Your task to perform on an android device: change the clock style Image 0: 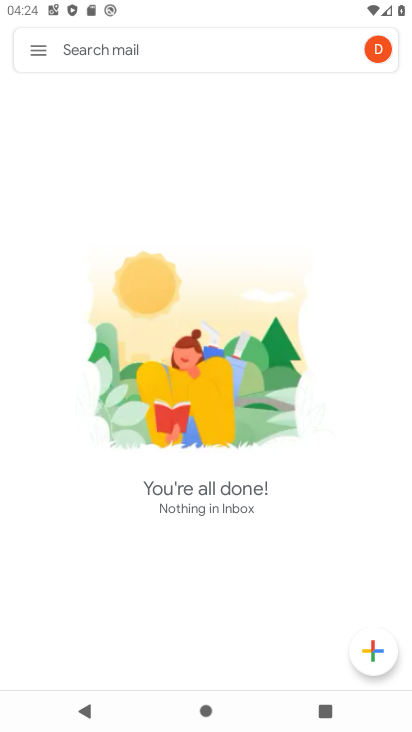
Step 0: press back button
Your task to perform on an android device: change the clock style Image 1: 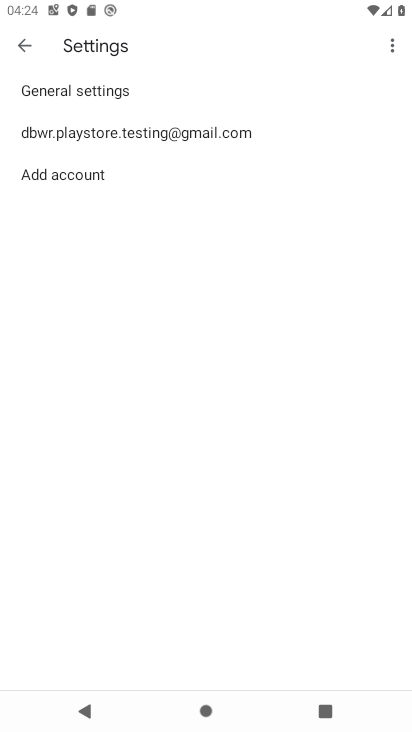
Step 1: press back button
Your task to perform on an android device: change the clock style Image 2: 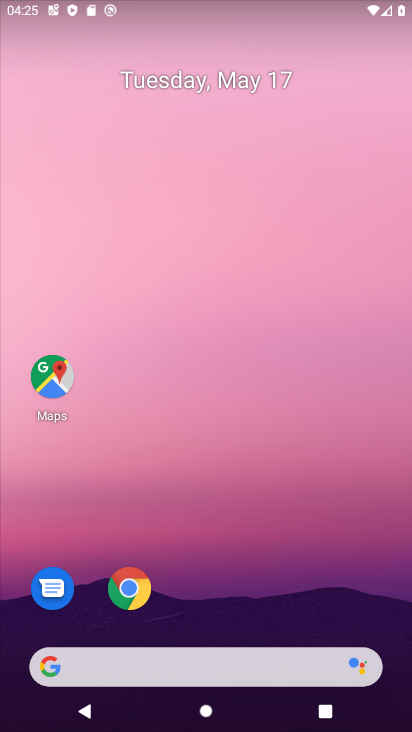
Step 2: drag from (206, 537) to (204, 114)
Your task to perform on an android device: change the clock style Image 3: 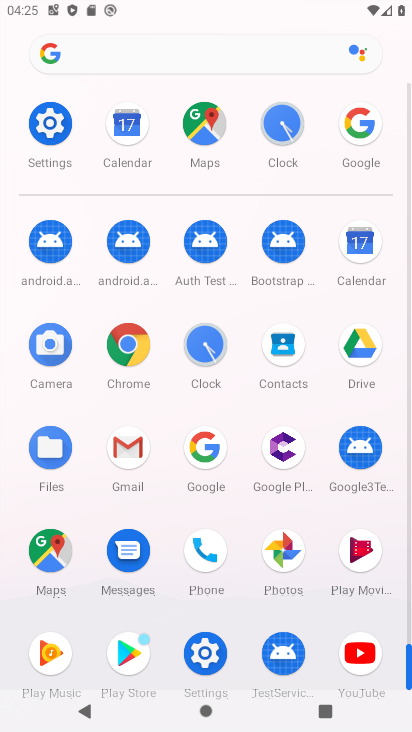
Step 3: click (280, 122)
Your task to perform on an android device: change the clock style Image 4: 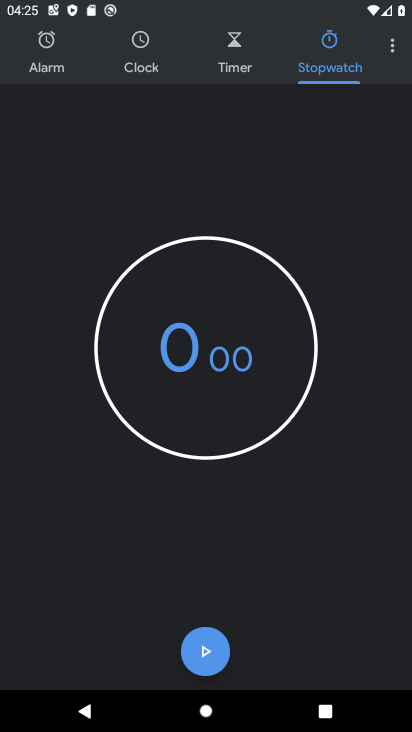
Step 4: click (393, 45)
Your task to perform on an android device: change the clock style Image 5: 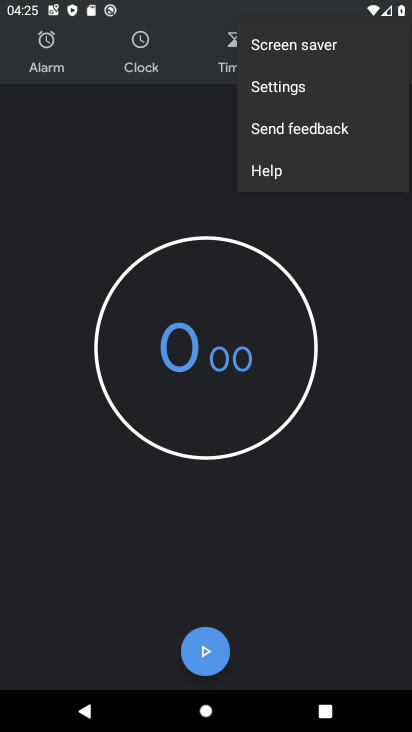
Step 5: click (281, 83)
Your task to perform on an android device: change the clock style Image 6: 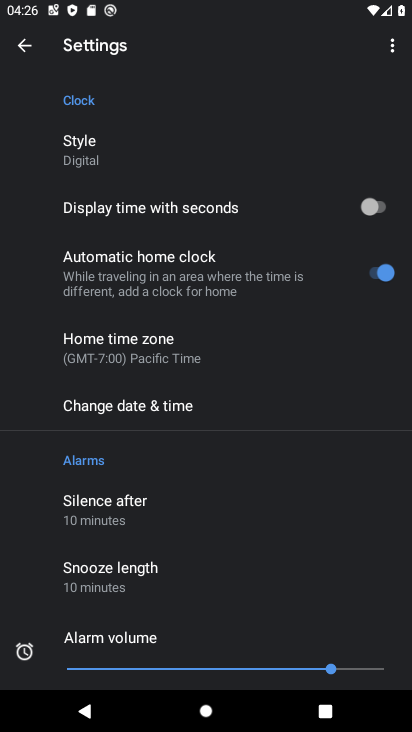
Step 6: click (104, 149)
Your task to perform on an android device: change the clock style Image 7: 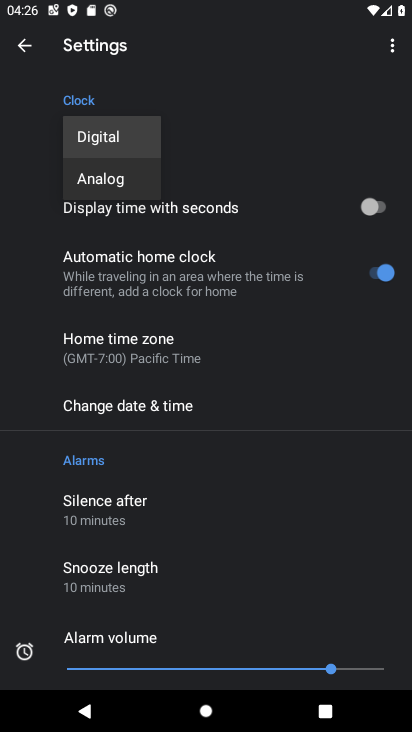
Step 7: click (105, 177)
Your task to perform on an android device: change the clock style Image 8: 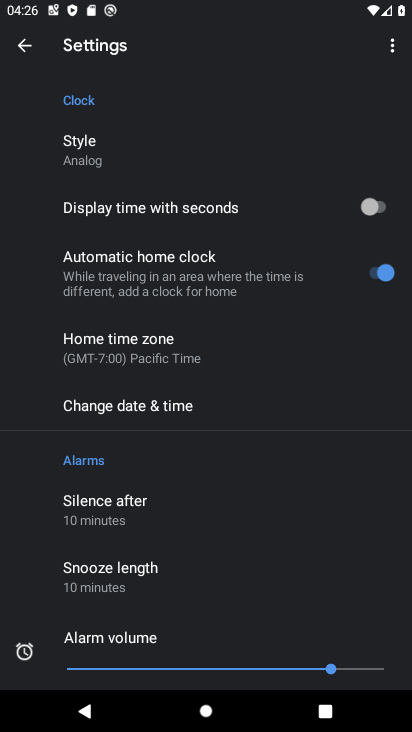
Step 8: task complete